Your task to perform on an android device: change notification settings in the gmail app Image 0: 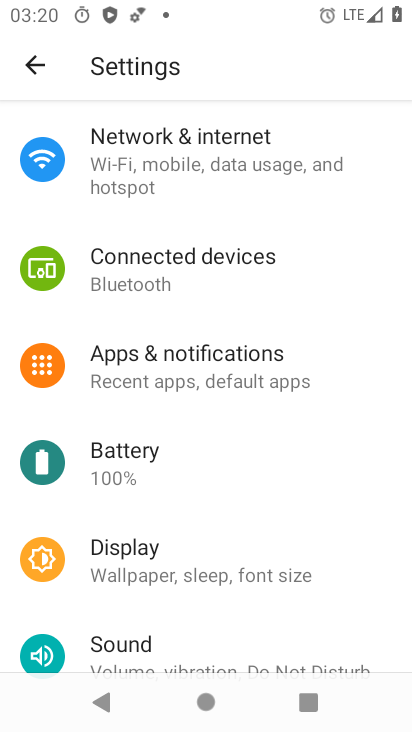
Step 0: click (168, 360)
Your task to perform on an android device: change notification settings in the gmail app Image 1: 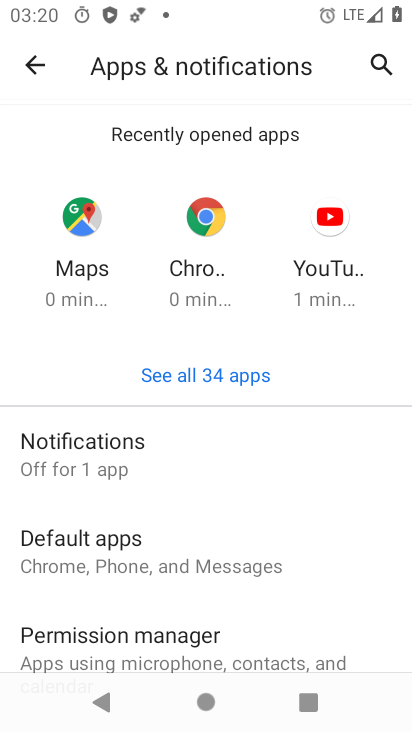
Step 1: drag from (213, 541) to (289, 135)
Your task to perform on an android device: change notification settings in the gmail app Image 2: 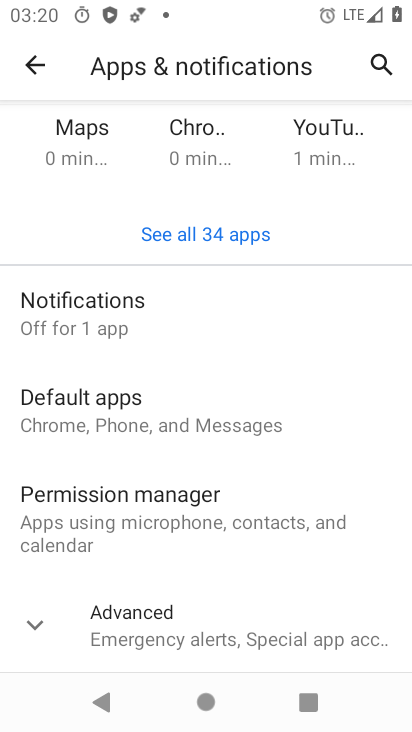
Step 2: click (179, 301)
Your task to perform on an android device: change notification settings in the gmail app Image 3: 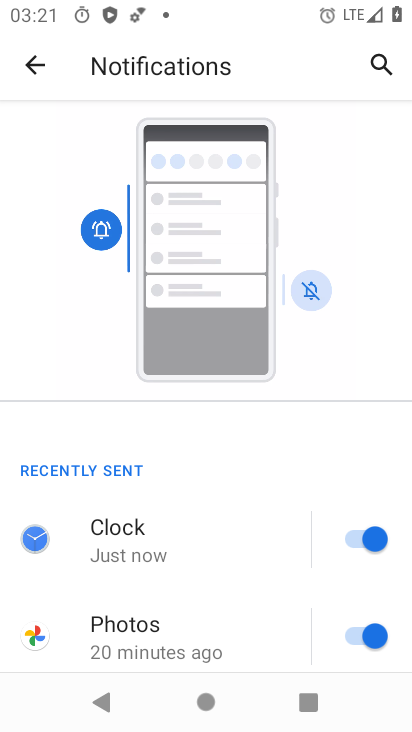
Step 3: drag from (196, 548) to (269, 169)
Your task to perform on an android device: change notification settings in the gmail app Image 4: 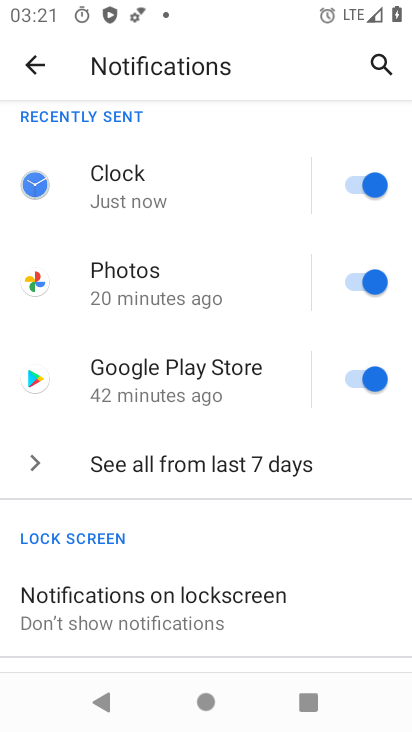
Step 4: drag from (227, 547) to (302, 62)
Your task to perform on an android device: change notification settings in the gmail app Image 5: 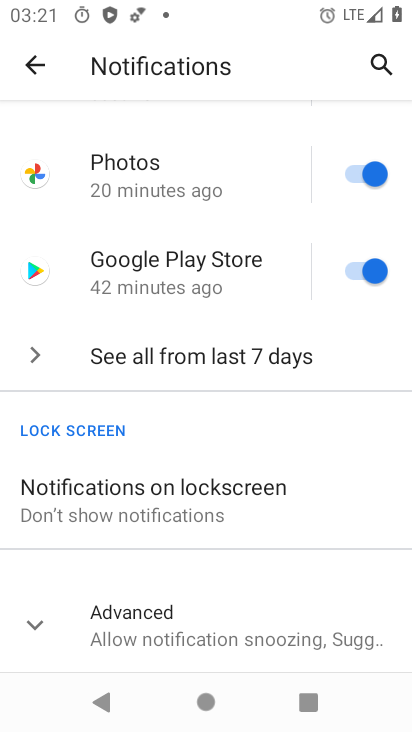
Step 5: drag from (178, 429) to (223, 192)
Your task to perform on an android device: change notification settings in the gmail app Image 6: 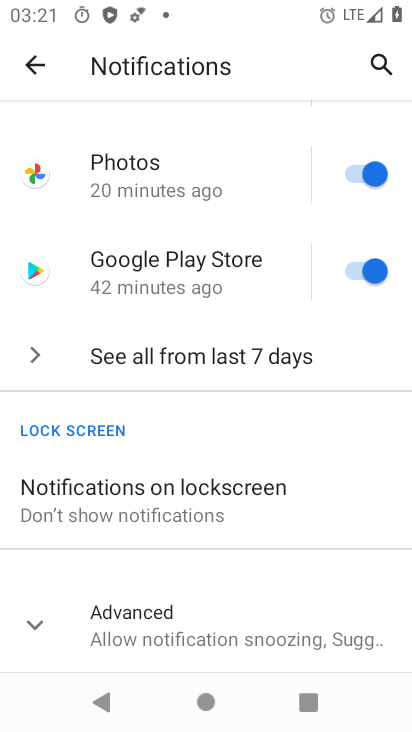
Step 6: click (149, 631)
Your task to perform on an android device: change notification settings in the gmail app Image 7: 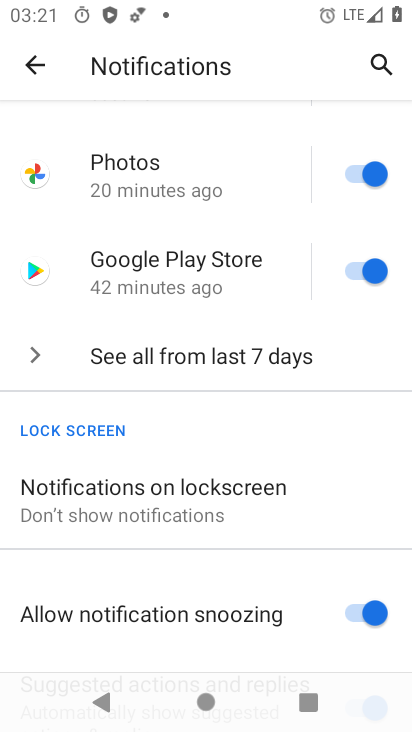
Step 7: drag from (227, 593) to (280, 143)
Your task to perform on an android device: change notification settings in the gmail app Image 8: 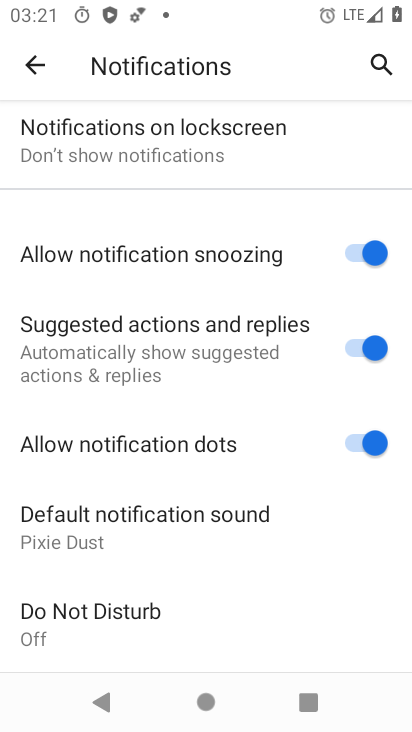
Step 8: drag from (176, 572) to (243, 237)
Your task to perform on an android device: change notification settings in the gmail app Image 9: 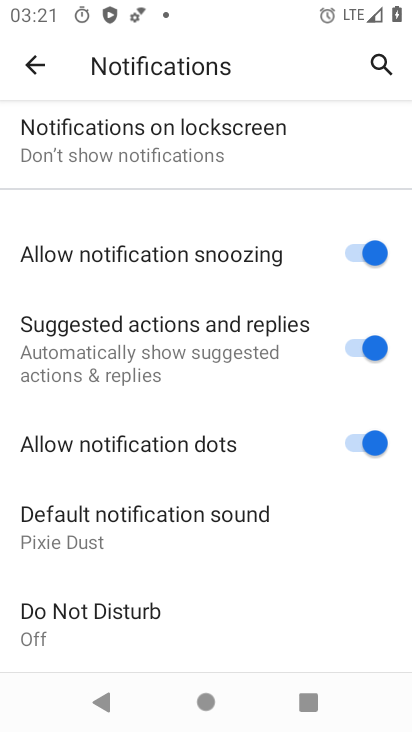
Step 9: click (371, 250)
Your task to perform on an android device: change notification settings in the gmail app Image 10: 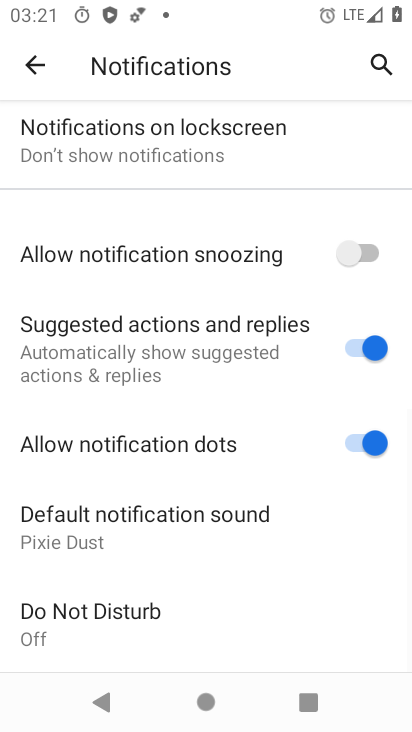
Step 10: task complete